Your task to perform on an android device: Open calendar and show me the second week of next month Image 0: 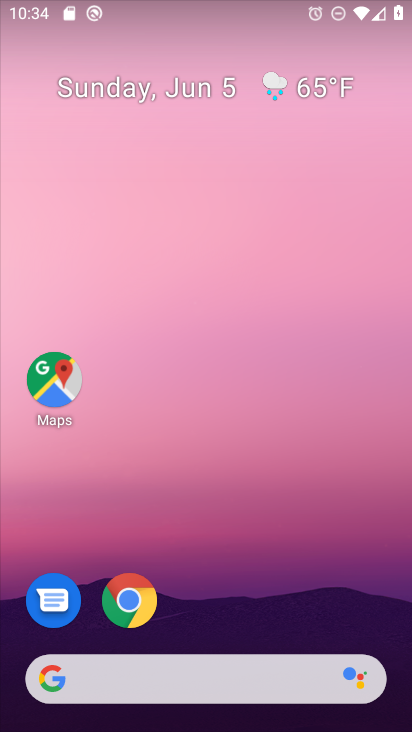
Step 0: drag from (359, 624) to (298, 48)
Your task to perform on an android device: Open calendar and show me the second week of next month Image 1: 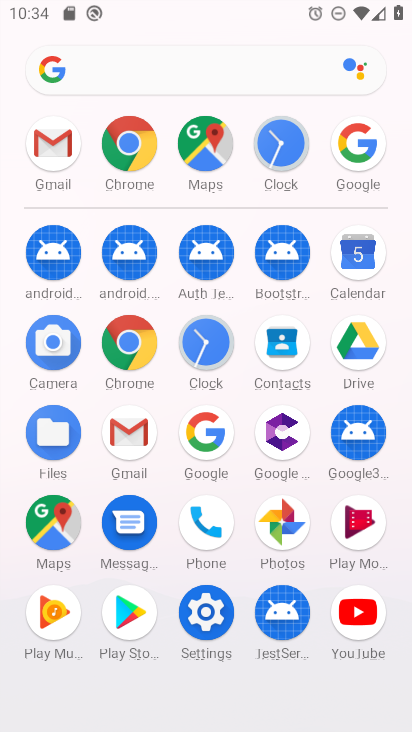
Step 1: click (365, 257)
Your task to perform on an android device: Open calendar and show me the second week of next month Image 2: 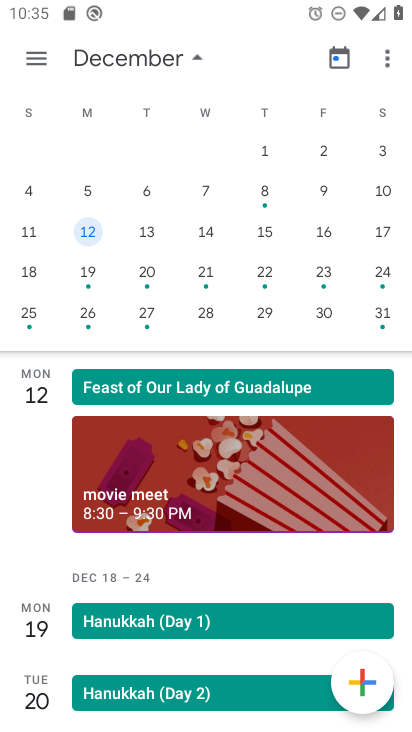
Step 2: click (133, 66)
Your task to perform on an android device: Open calendar and show me the second week of next month Image 3: 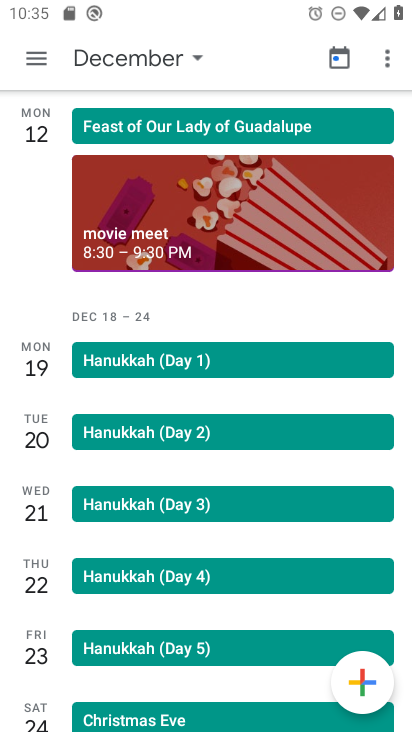
Step 3: click (144, 64)
Your task to perform on an android device: Open calendar and show me the second week of next month Image 4: 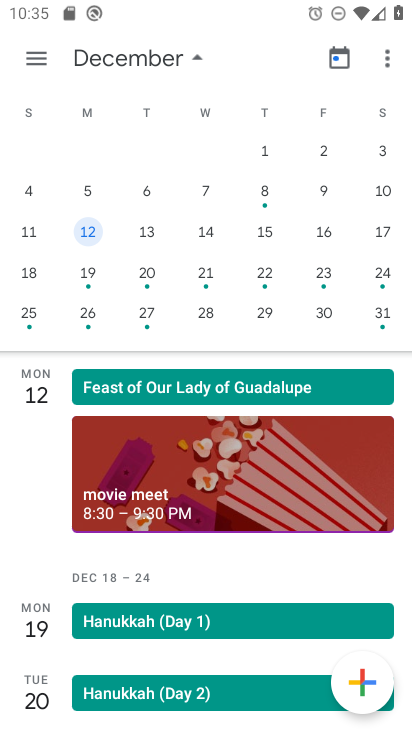
Step 4: drag from (384, 196) to (12, 335)
Your task to perform on an android device: Open calendar and show me the second week of next month Image 5: 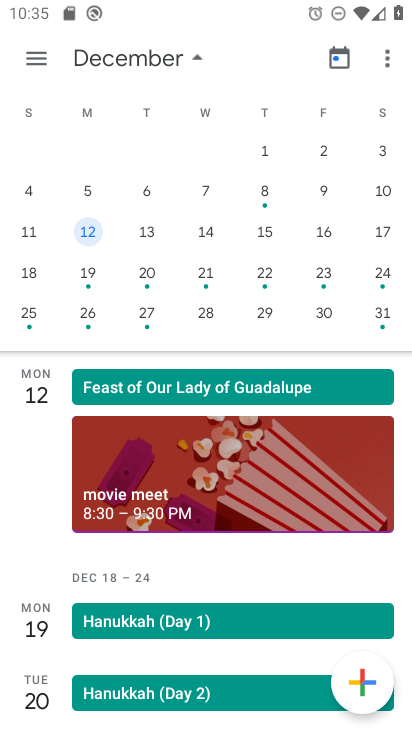
Step 5: drag from (362, 208) to (25, 213)
Your task to perform on an android device: Open calendar and show me the second week of next month Image 6: 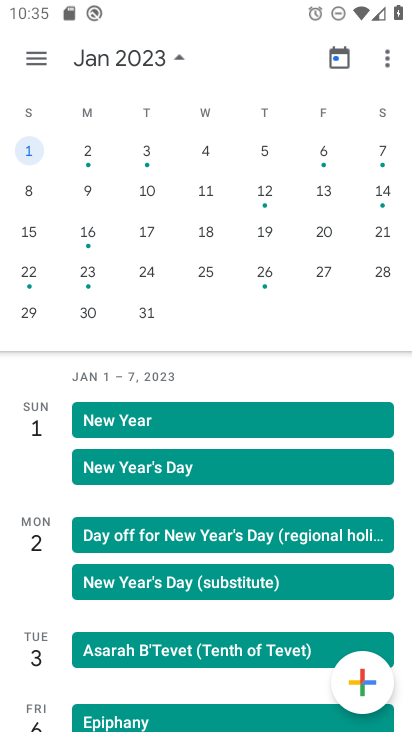
Step 6: click (263, 205)
Your task to perform on an android device: Open calendar and show me the second week of next month Image 7: 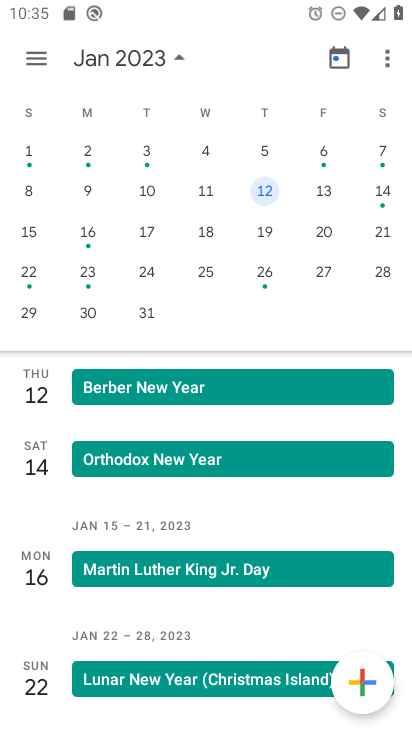
Step 7: task complete